Your task to perform on an android device: add a label to a message in the gmail app Image 0: 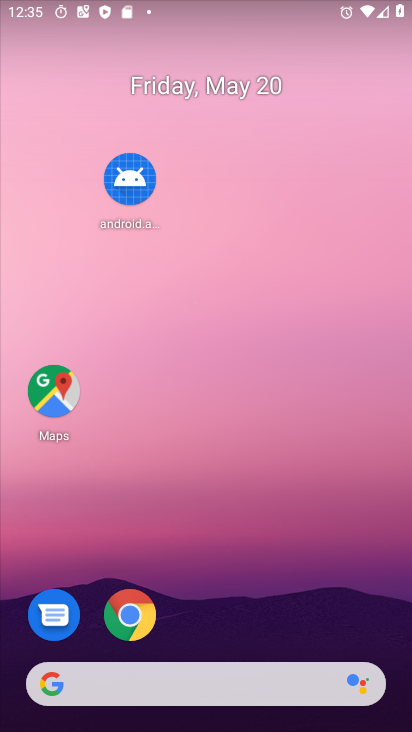
Step 0: drag from (327, 563) to (311, 190)
Your task to perform on an android device: add a label to a message in the gmail app Image 1: 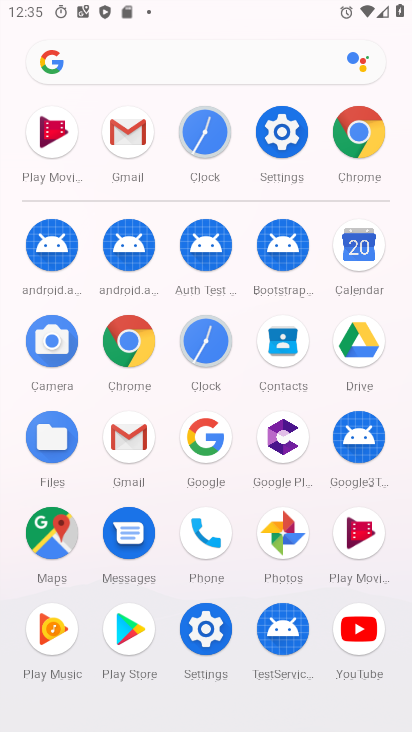
Step 1: click (125, 429)
Your task to perform on an android device: add a label to a message in the gmail app Image 2: 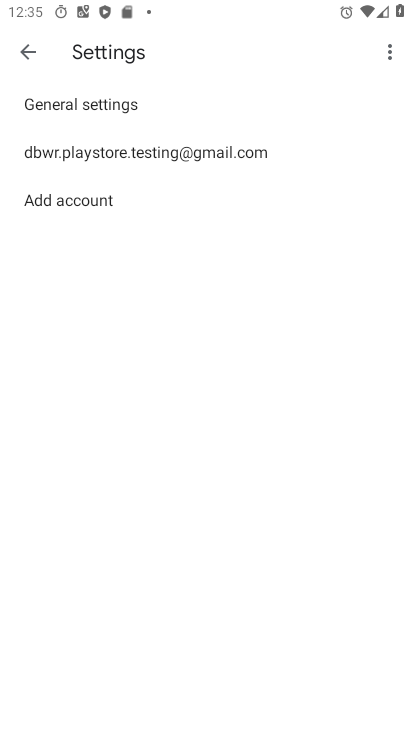
Step 2: click (22, 47)
Your task to perform on an android device: add a label to a message in the gmail app Image 3: 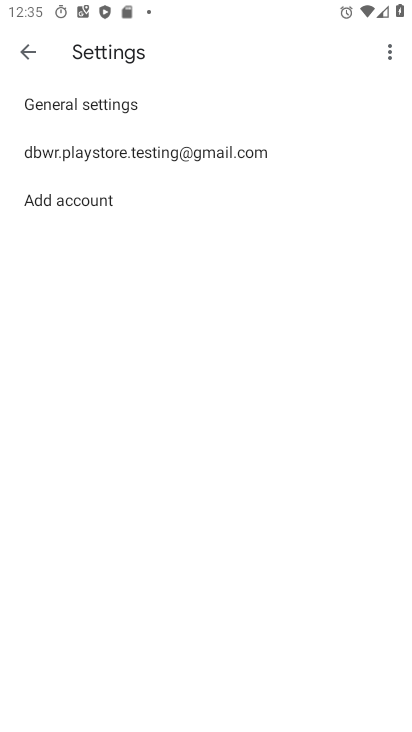
Step 3: click (29, 54)
Your task to perform on an android device: add a label to a message in the gmail app Image 4: 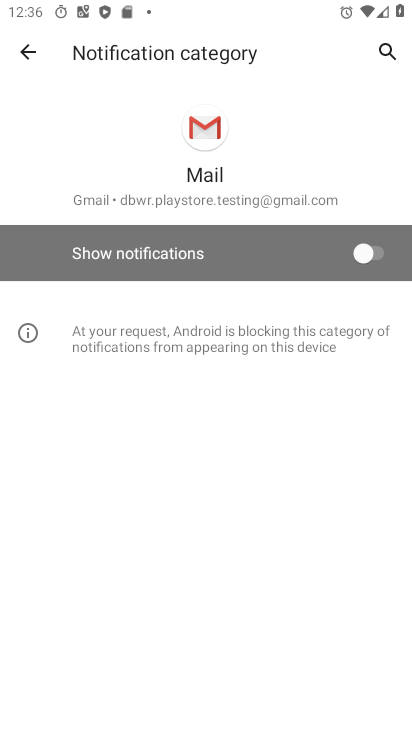
Step 4: click (30, 50)
Your task to perform on an android device: add a label to a message in the gmail app Image 5: 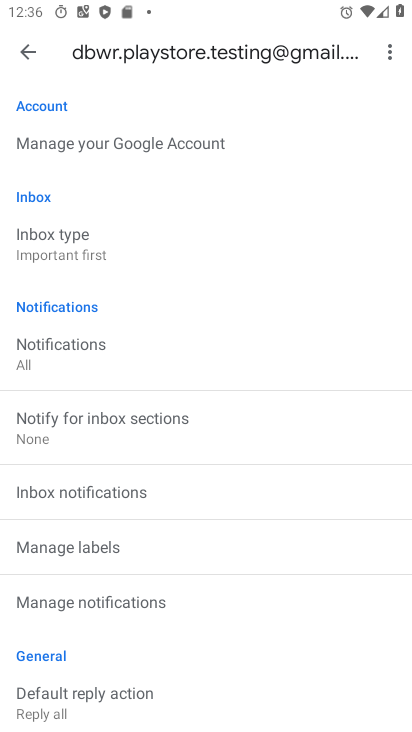
Step 5: click (33, 56)
Your task to perform on an android device: add a label to a message in the gmail app Image 6: 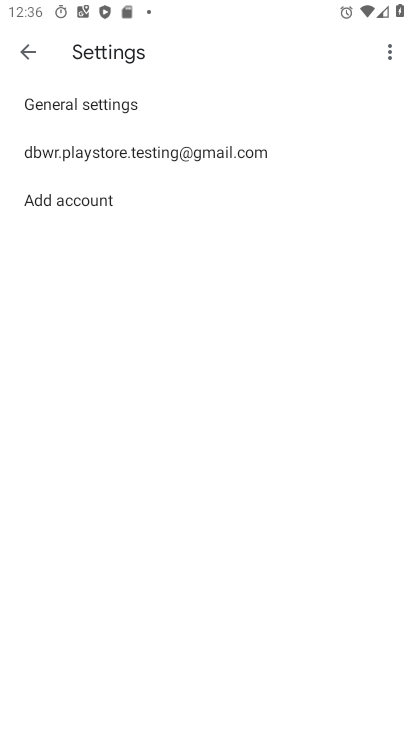
Step 6: click (34, 56)
Your task to perform on an android device: add a label to a message in the gmail app Image 7: 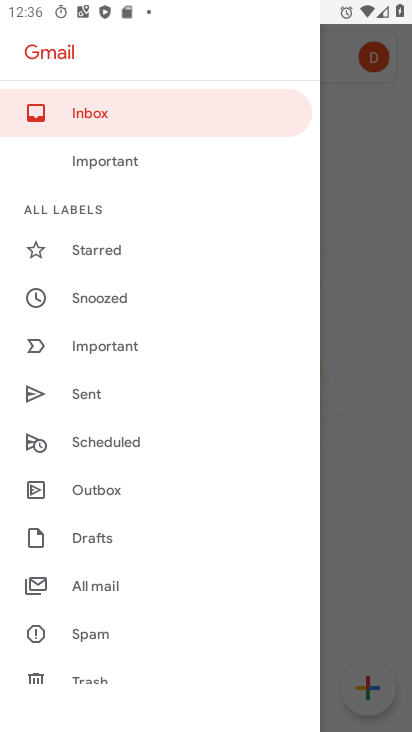
Step 7: click (126, 585)
Your task to perform on an android device: add a label to a message in the gmail app Image 8: 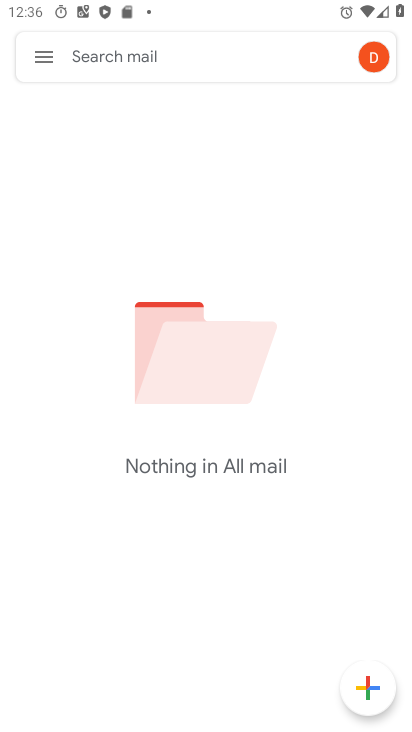
Step 8: task complete